Your task to perform on an android device: turn off wifi Image 0: 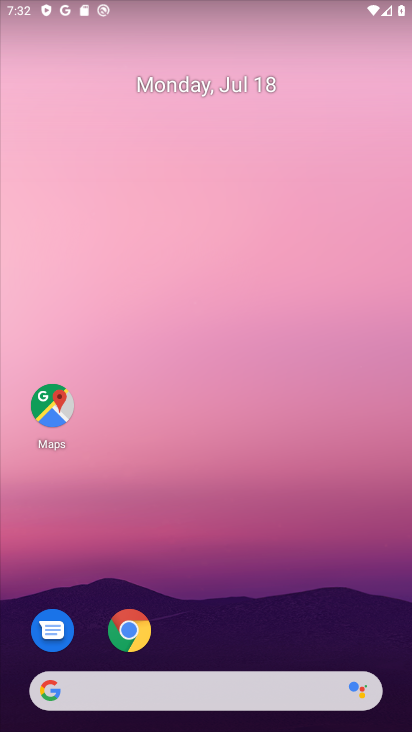
Step 0: drag from (312, 568) to (363, 107)
Your task to perform on an android device: turn off wifi Image 1: 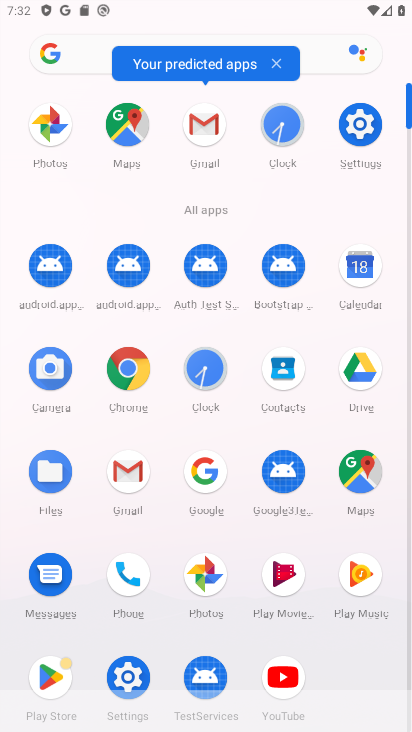
Step 1: click (356, 156)
Your task to perform on an android device: turn off wifi Image 2: 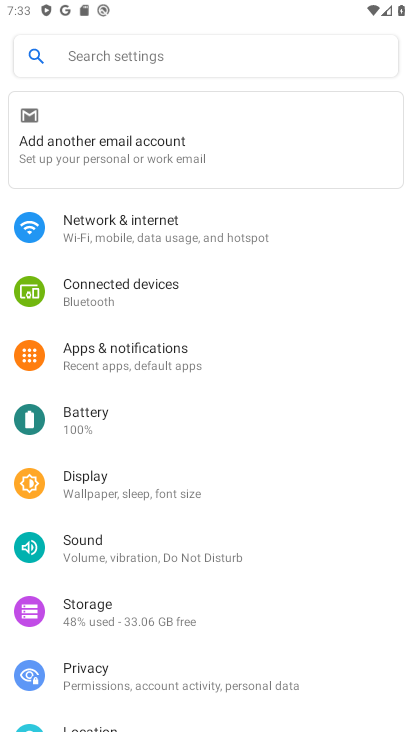
Step 2: click (211, 235)
Your task to perform on an android device: turn off wifi Image 3: 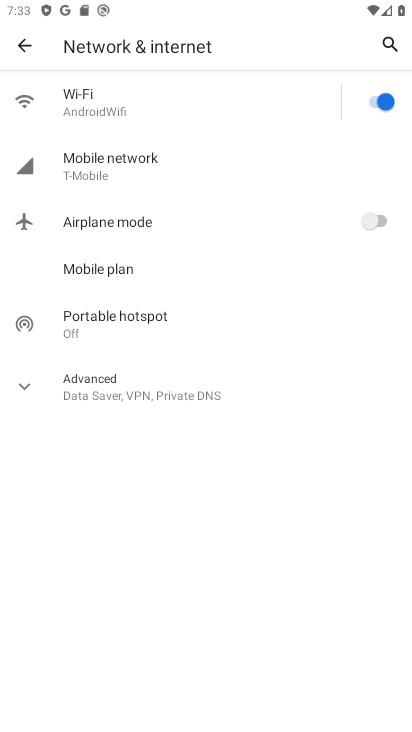
Step 3: click (376, 105)
Your task to perform on an android device: turn off wifi Image 4: 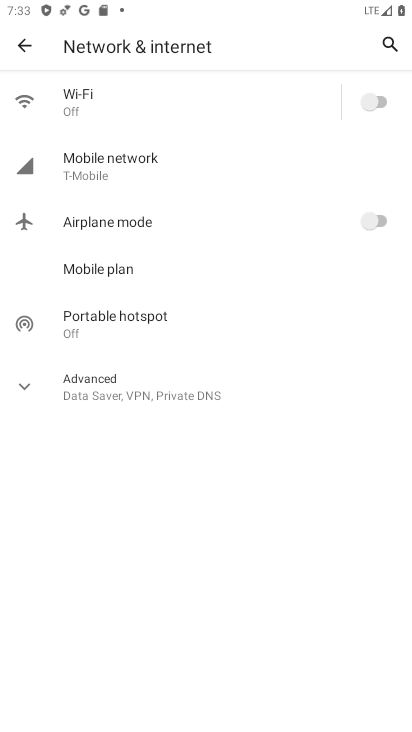
Step 4: task complete